Your task to perform on an android device: Clear all items from cart on costco. Search for macbook pro on costco, select the first entry, and add it to the cart. Image 0: 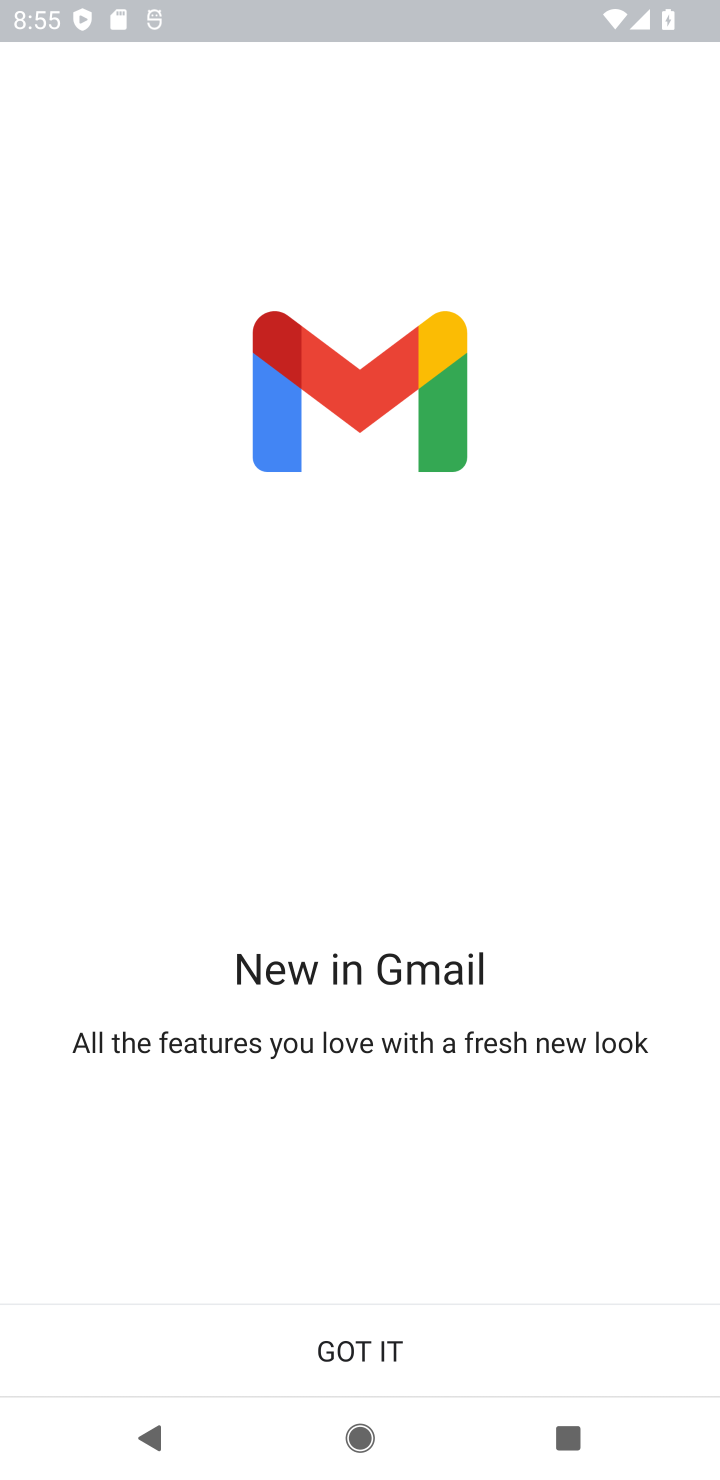
Step 0: press home button
Your task to perform on an android device: Clear all items from cart on costco. Search for macbook pro on costco, select the first entry, and add it to the cart. Image 1: 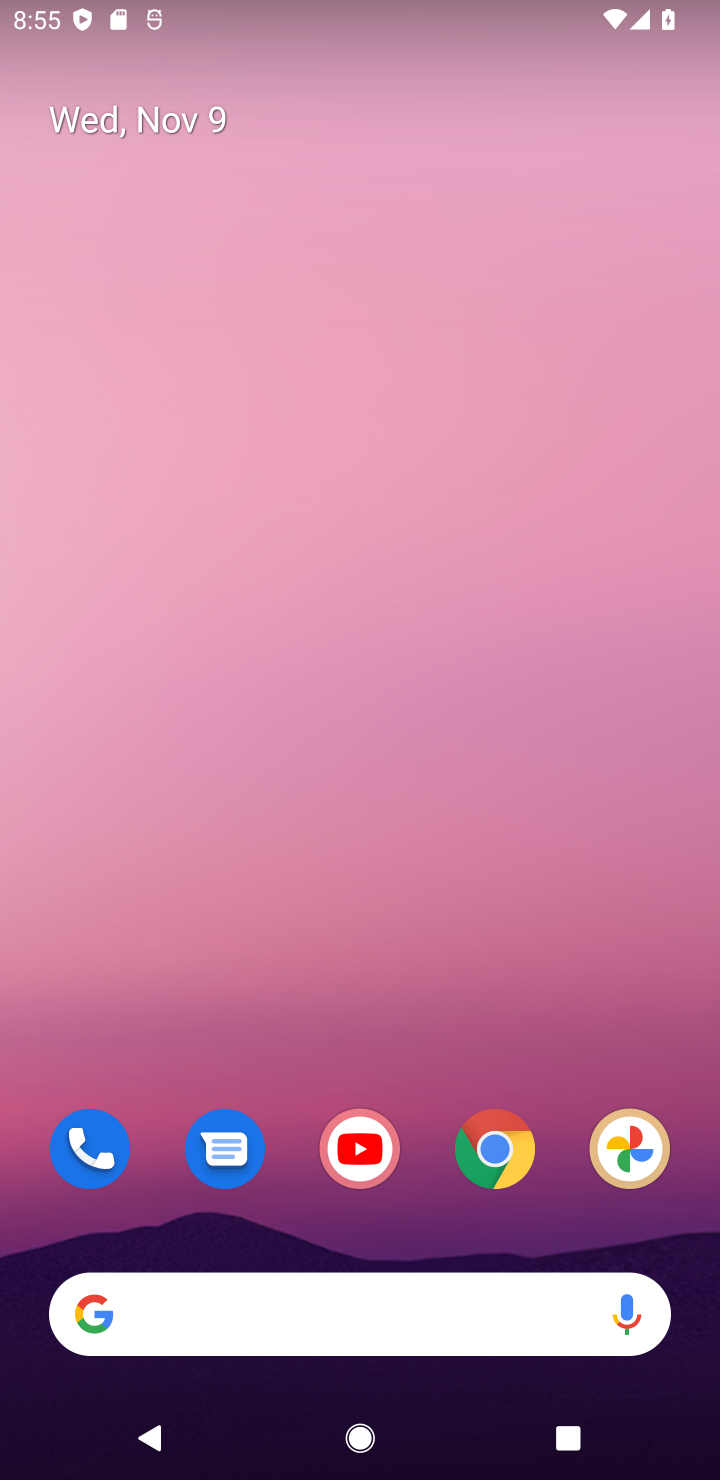
Step 1: click (479, 1120)
Your task to perform on an android device: Clear all items from cart on costco. Search for macbook pro on costco, select the first entry, and add it to the cart. Image 2: 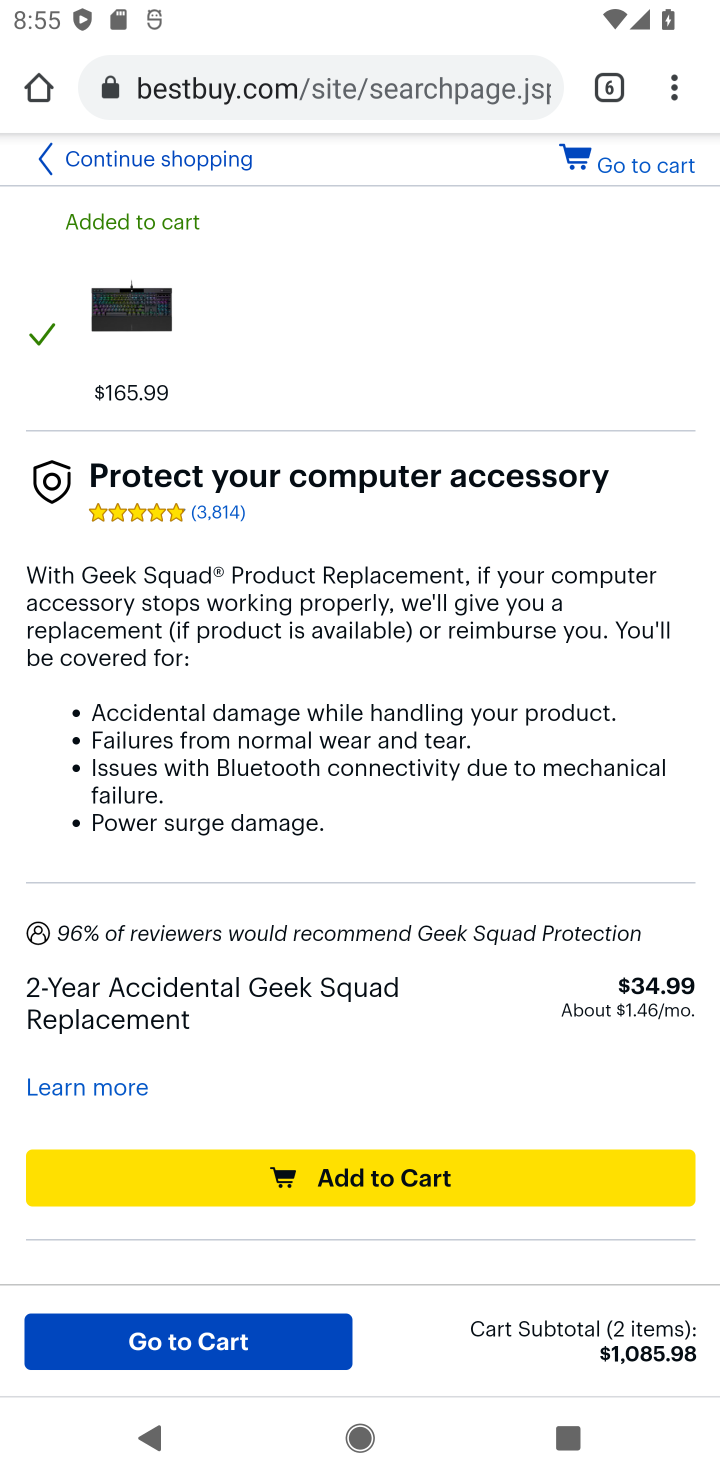
Step 2: click (613, 84)
Your task to perform on an android device: Clear all items from cart on costco. Search for macbook pro on costco, select the first entry, and add it to the cart. Image 3: 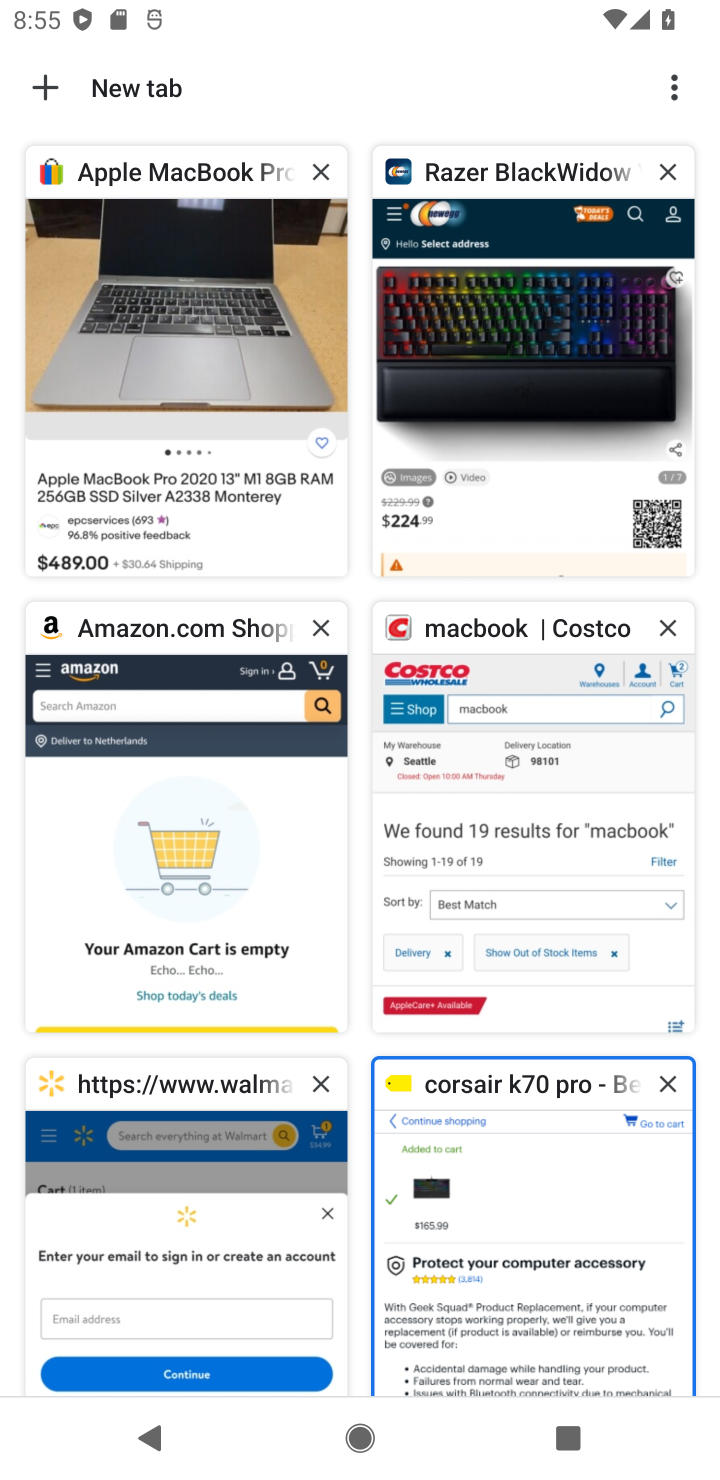
Step 3: click (538, 755)
Your task to perform on an android device: Clear all items from cart on costco. Search for macbook pro on costco, select the first entry, and add it to the cart. Image 4: 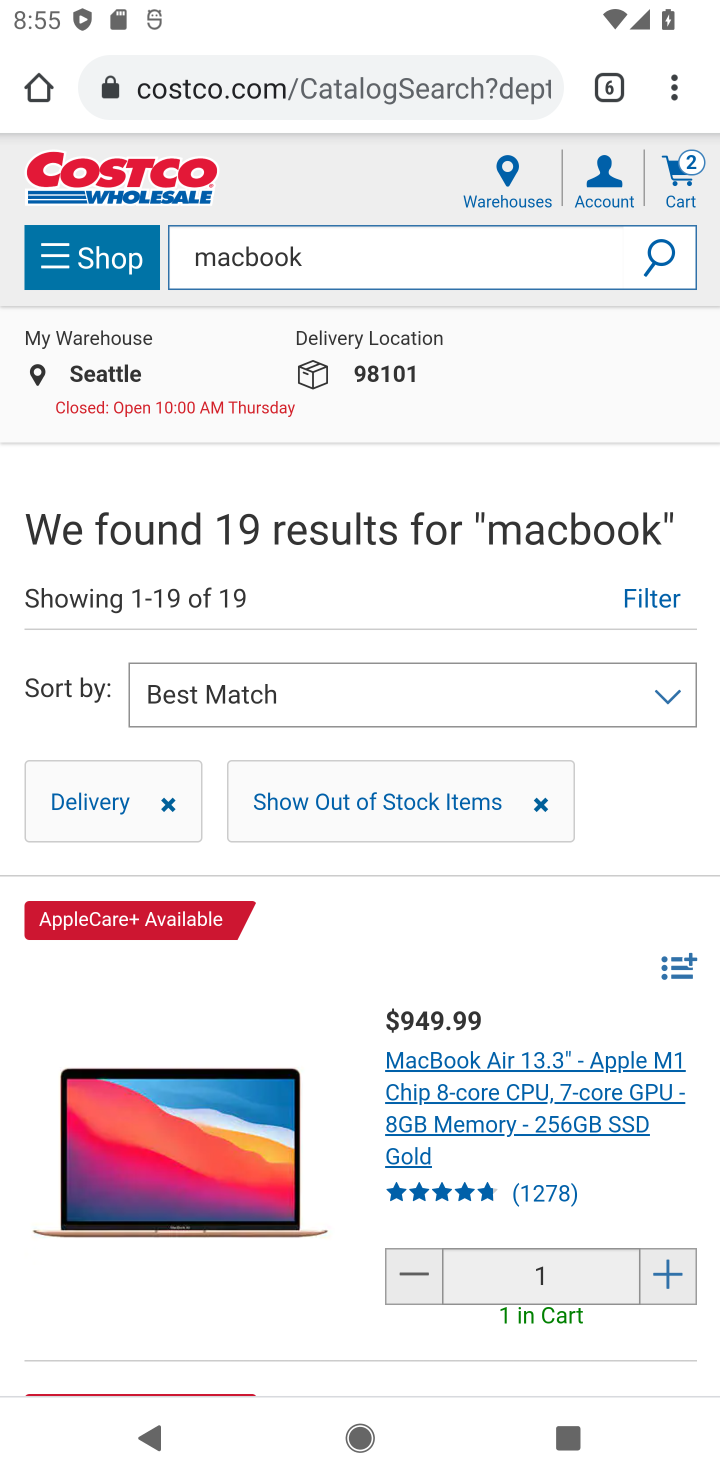
Step 4: click (671, 180)
Your task to perform on an android device: Clear all items from cart on costco. Search for macbook pro on costco, select the first entry, and add it to the cart. Image 5: 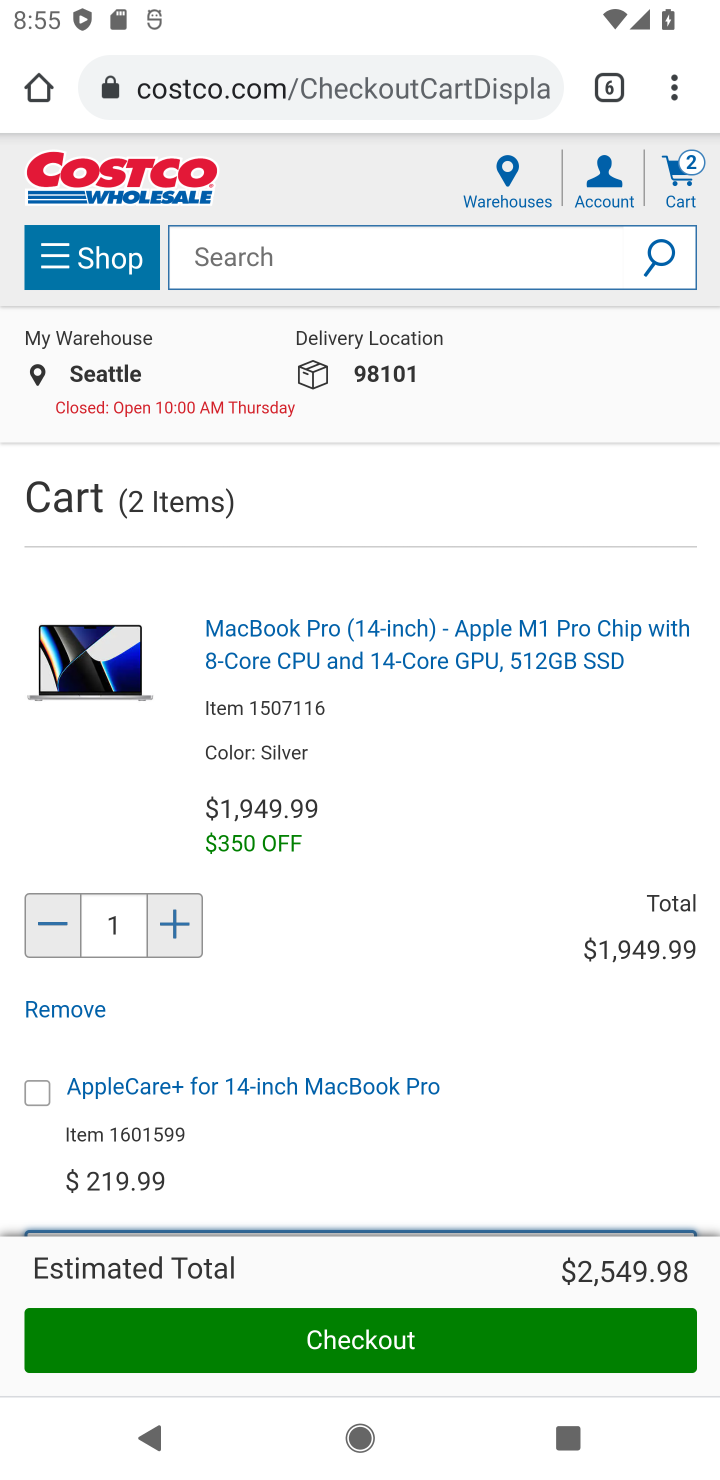
Step 5: click (78, 1010)
Your task to perform on an android device: Clear all items from cart on costco. Search for macbook pro on costco, select the first entry, and add it to the cart. Image 6: 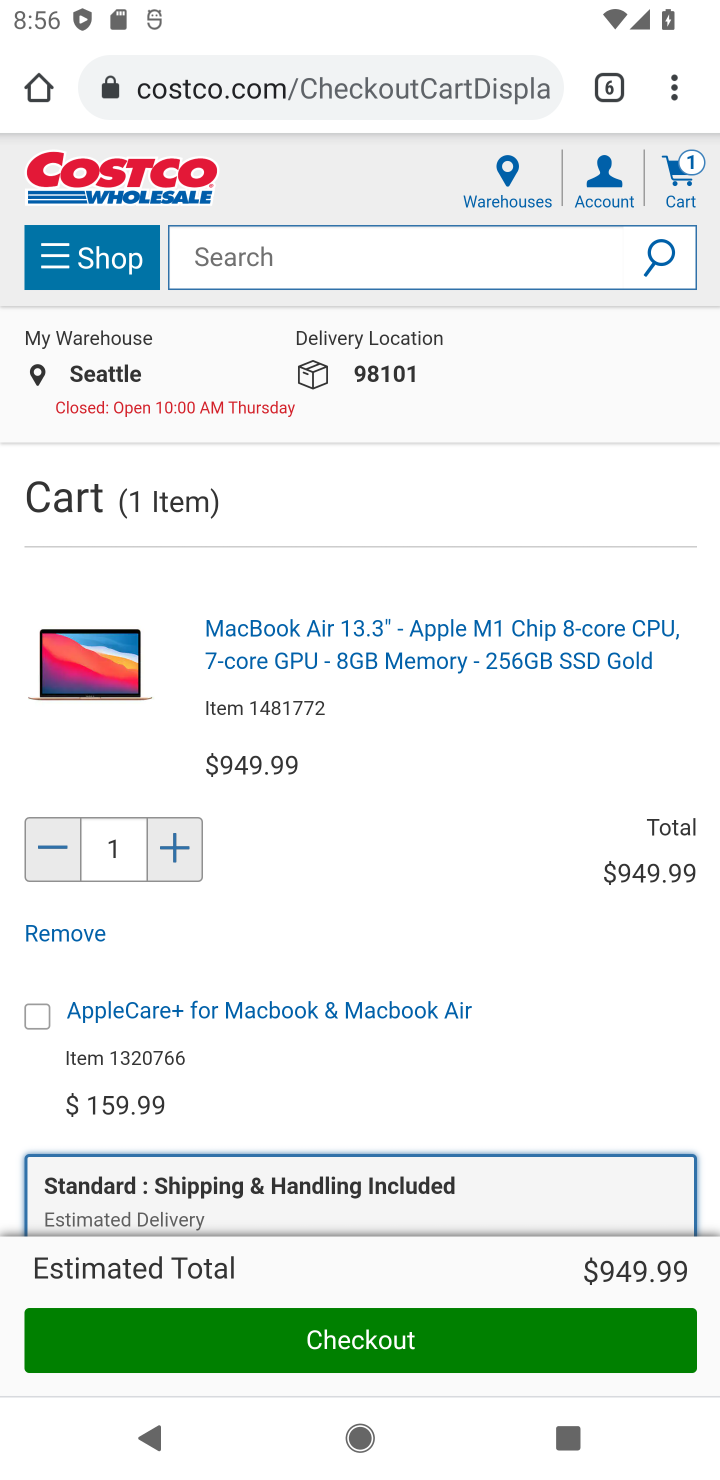
Step 6: drag from (480, 1122) to (672, 198)
Your task to perform on an android device: Clear all items from cart on costco. Search for macbook pro on costco, select the first entry, and add it to the cart. Image 7: 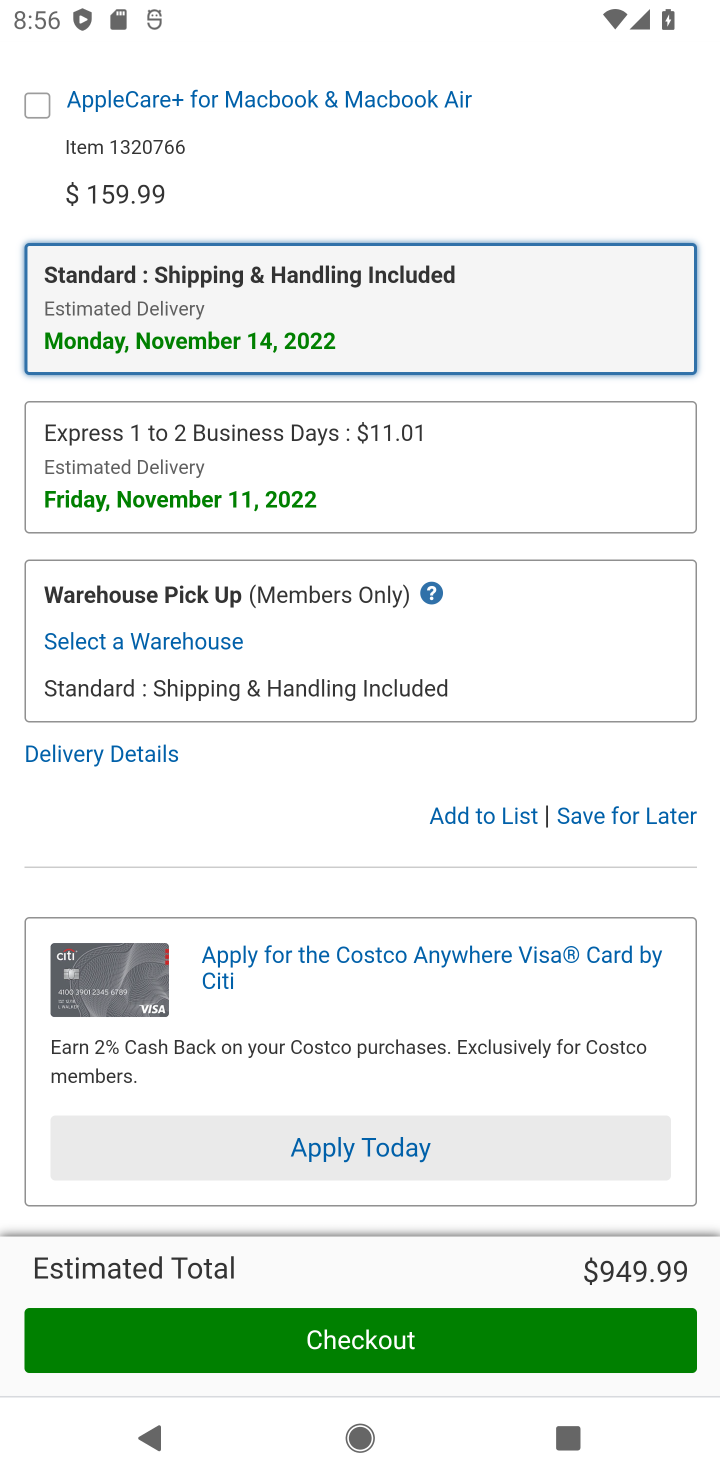
Step 7: click (619, 817)
Your task to perform on an android device: Clear all items from cart on costco. Search for macbook pro on costco, select the first entry, and add it to the cart. Image 8: 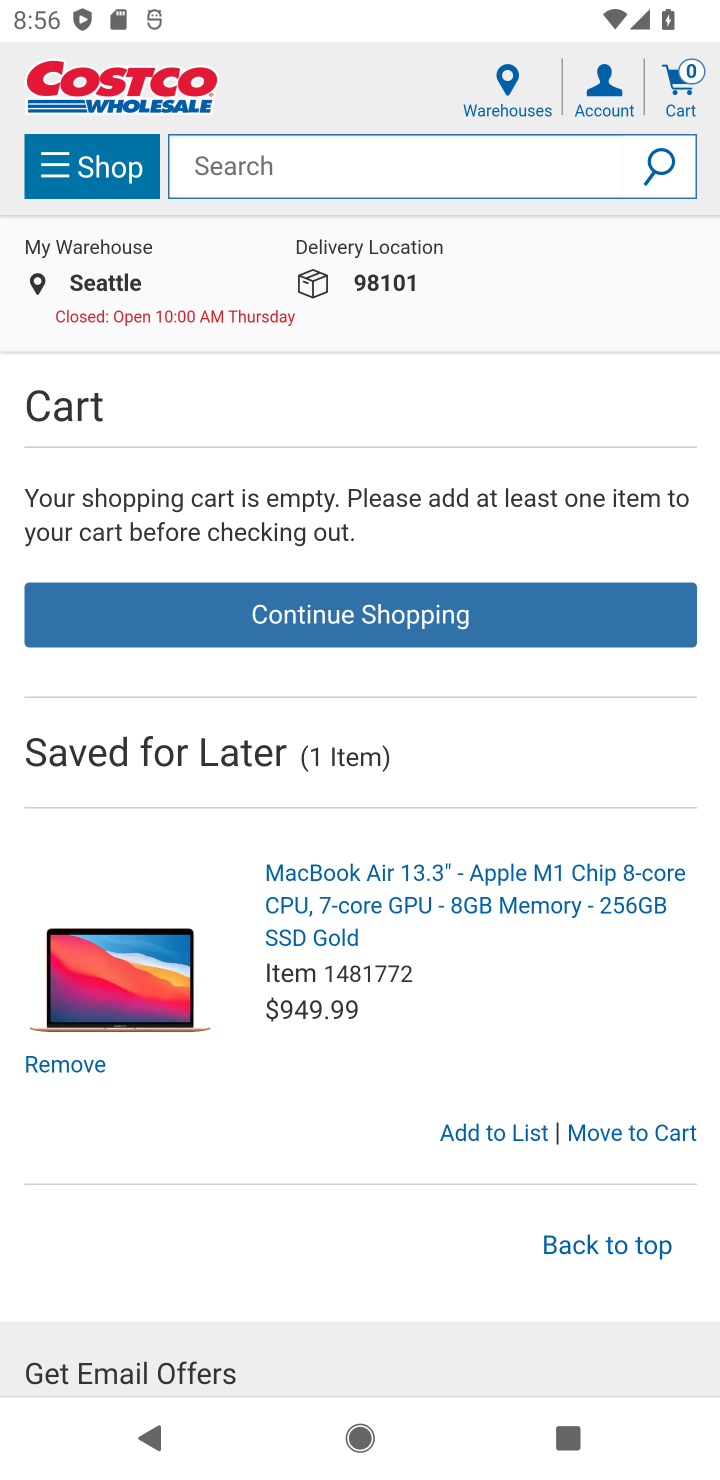
Step 8: click (251, 170)
Your task to perform on an android device: Clear all items from cart on costco. Search for macbook pro on costco, select the first entry, and add it to the cart. Image 9: 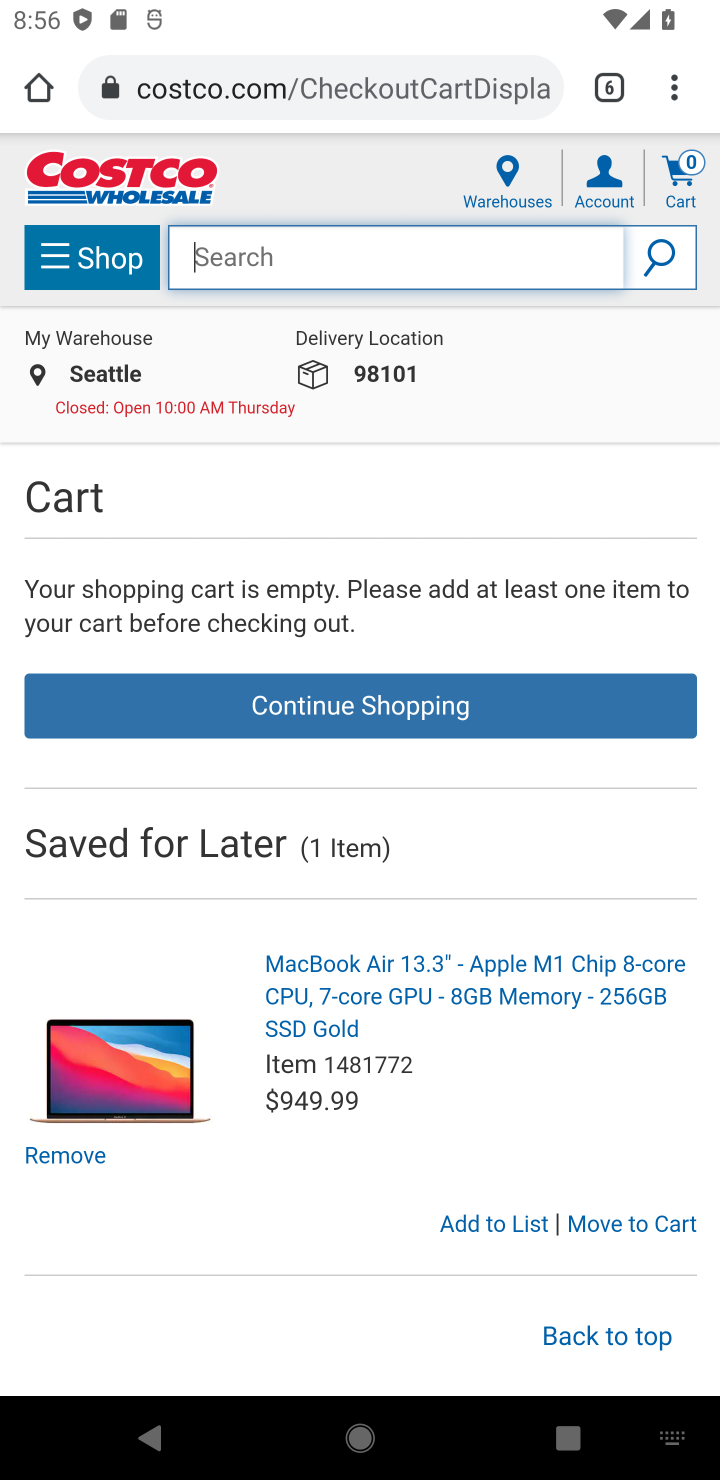
Step 9: type "macbook pro"
Your task to perform on an android device: Clear all items from cart on costco. Search for macbook pro on costco, select the first entry, and add it to the cart. Image 10: 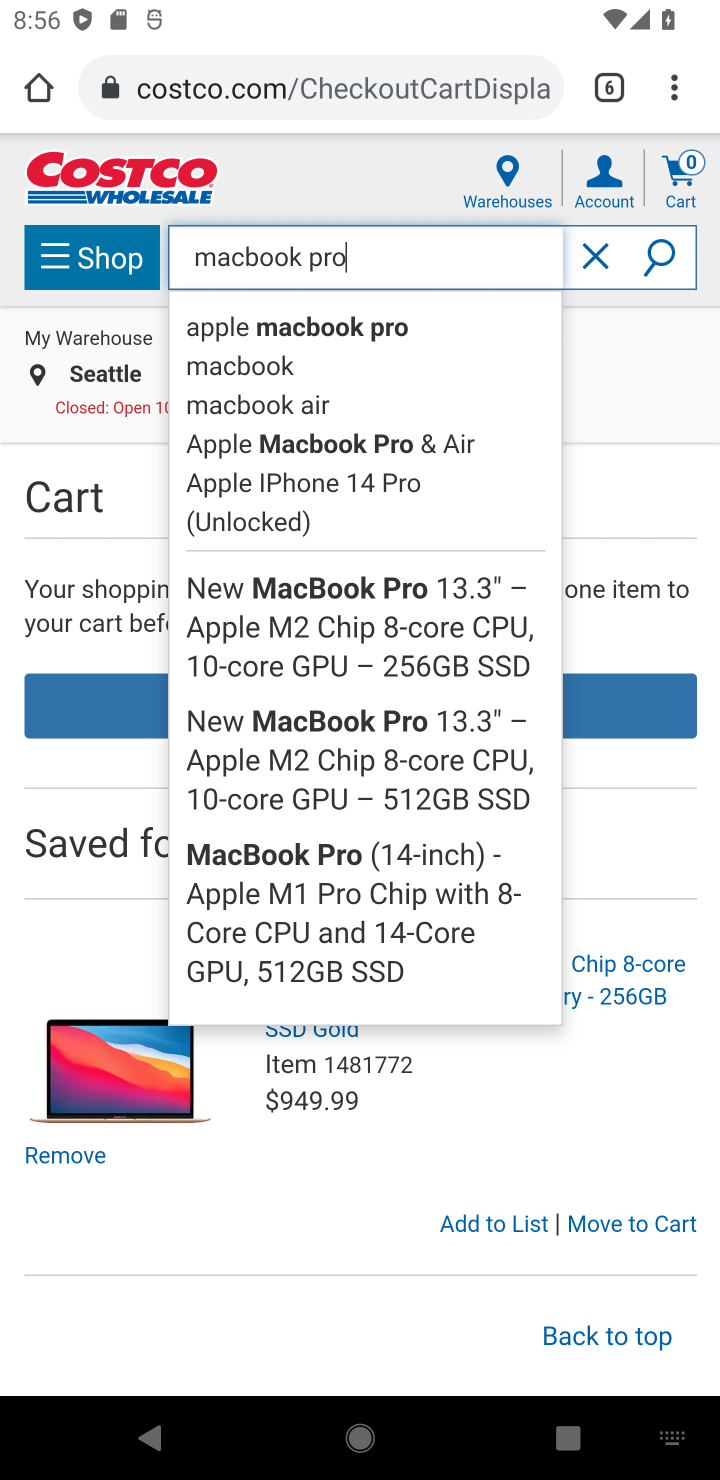
Step 10: click (656, 251)
Your task to perform on an android device: Clear all items from cart on costco. Search for macbook pro on costco, select the first entry, and add it to the cart. Image 11: 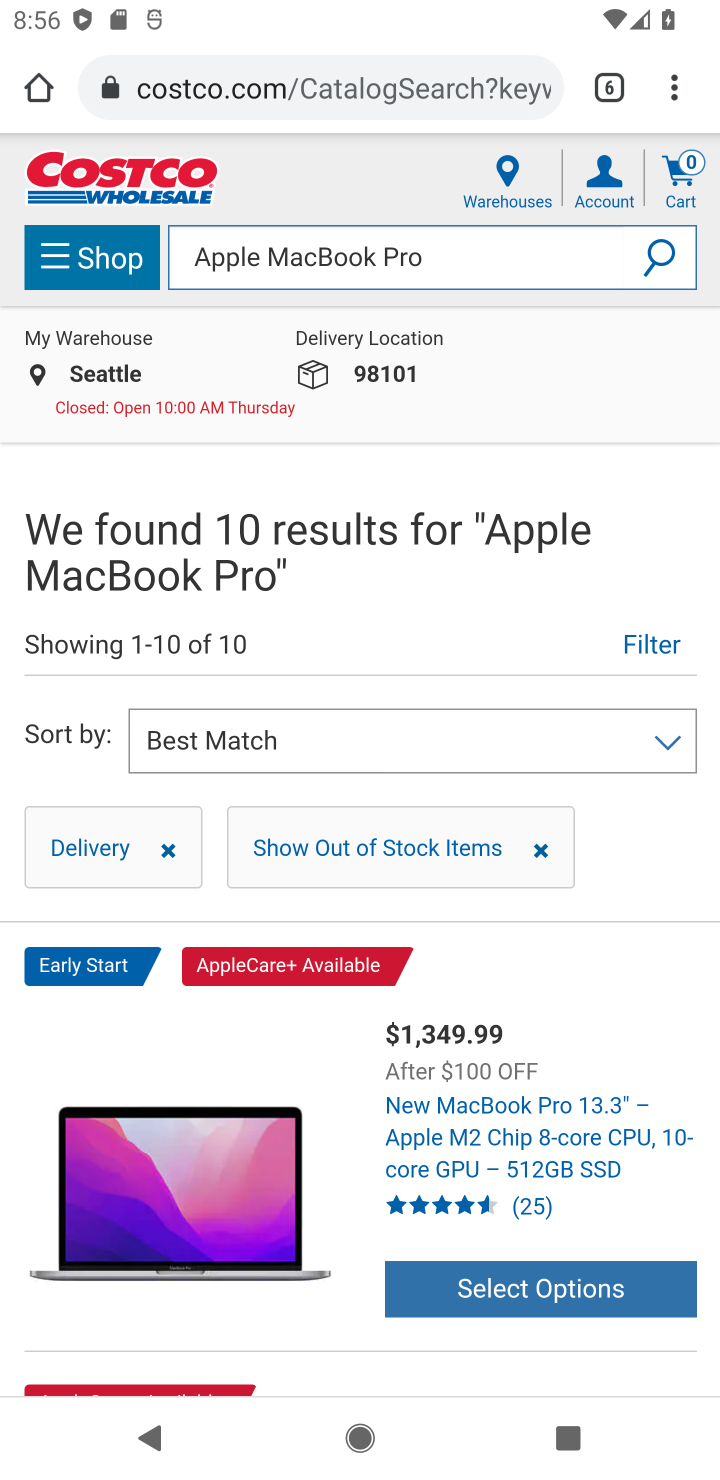
Step 11: click (543, 1109)
Your task to perform on an android device: Clear all items from cart on costco. Search for macbook pro on costco, select the first entry, and add it to the cart. Image 12: 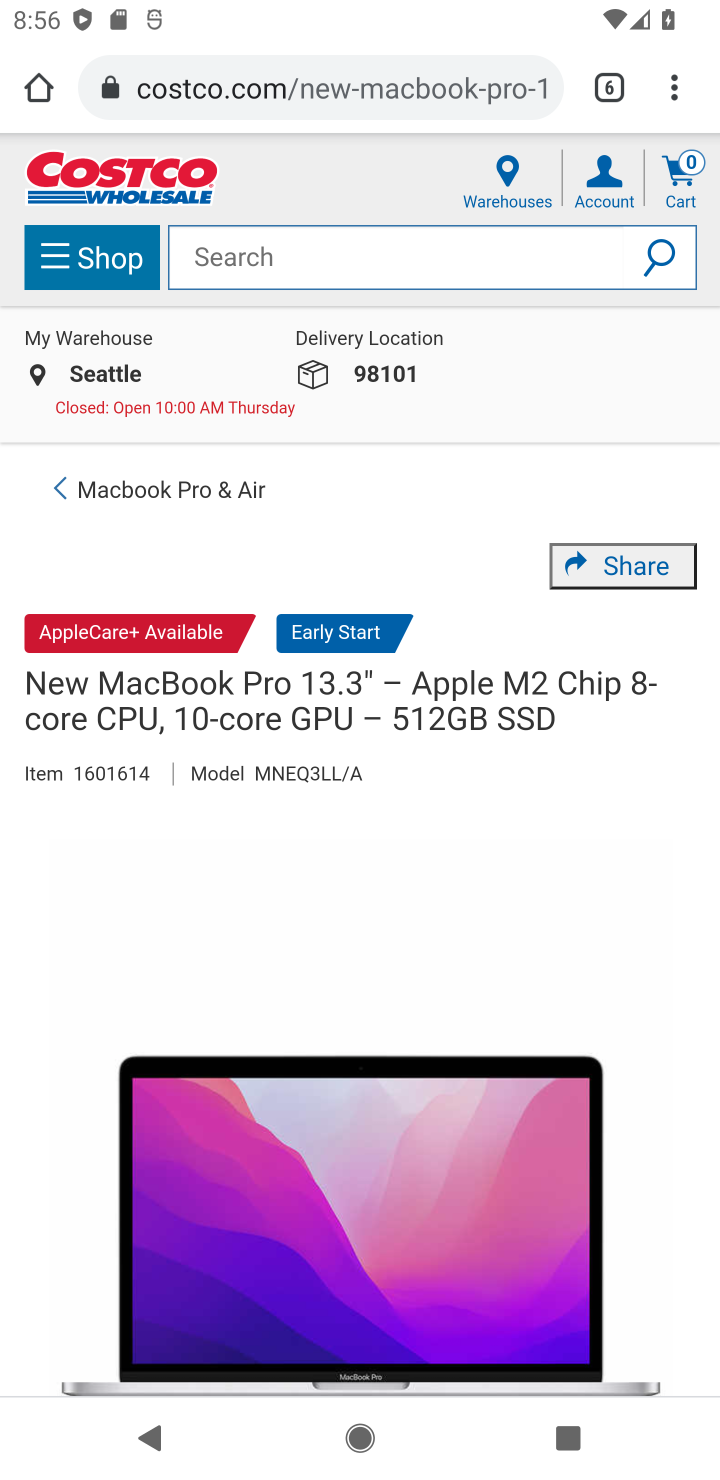
Step 12: drag from (33, 1296) to (165, 752)
Your task to perform on an android device: Clear all items from cart on costco. Search for macbook pro on costco, select the first entry, and add it to the cart. Image 13: 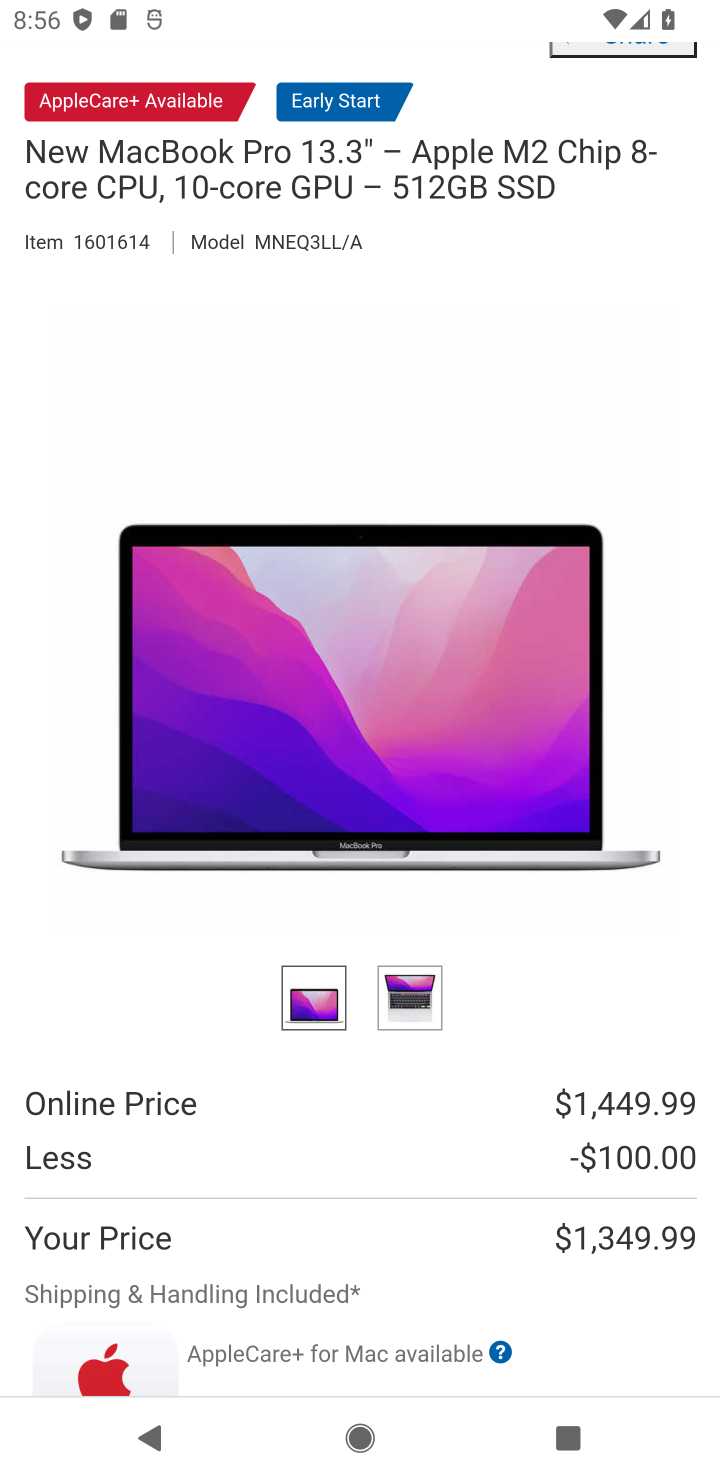
Step 13: drag from (413, 1175) to (703, 437)
Your task to perform on an android device: Clear all items from cart on costco. Search for macbook pro on costco, select the first entry, and add it to the cart. Image 14: 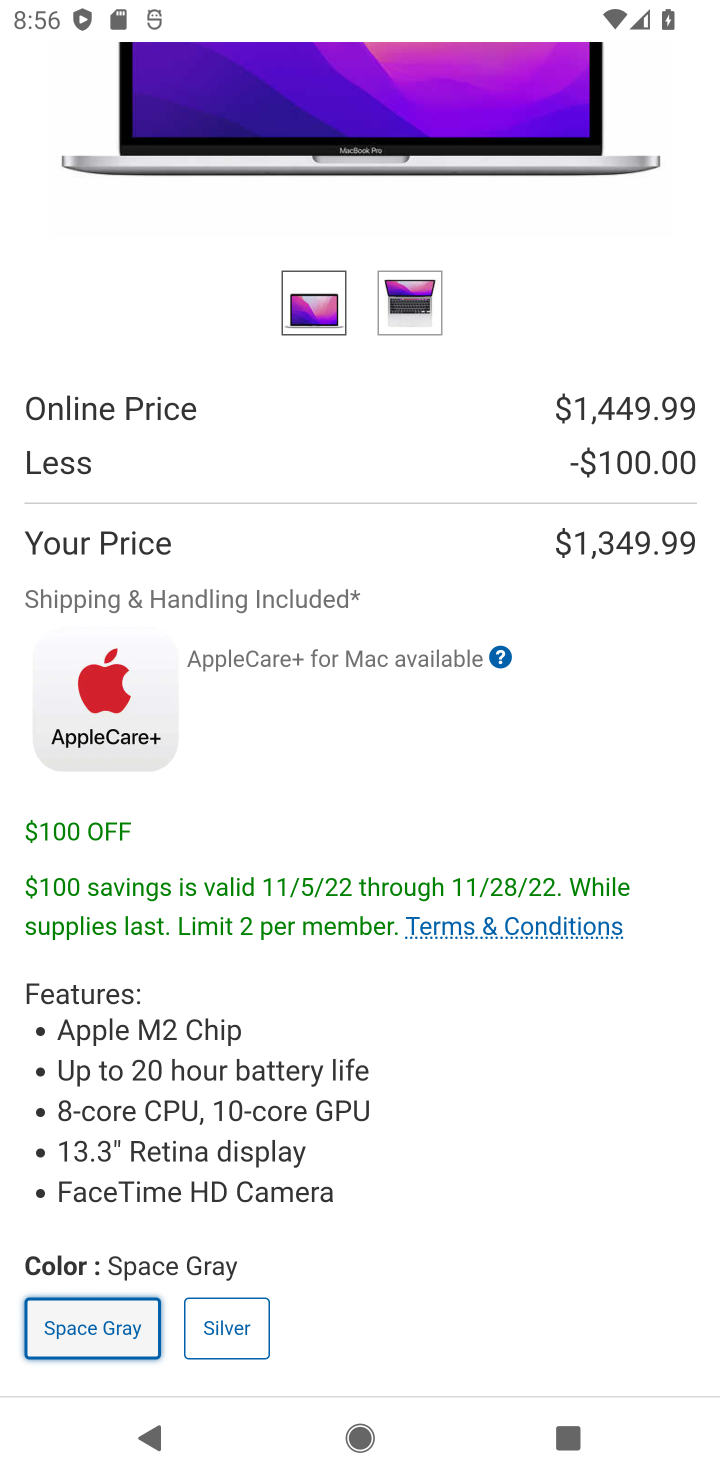
Step 14: drag from (448, 1240) to (603, 311)
Your task to perform on an android device: Clear all items from cart on costco. Search for macbook pro on costco, select the first entry, and add it to the cart. Image 15: 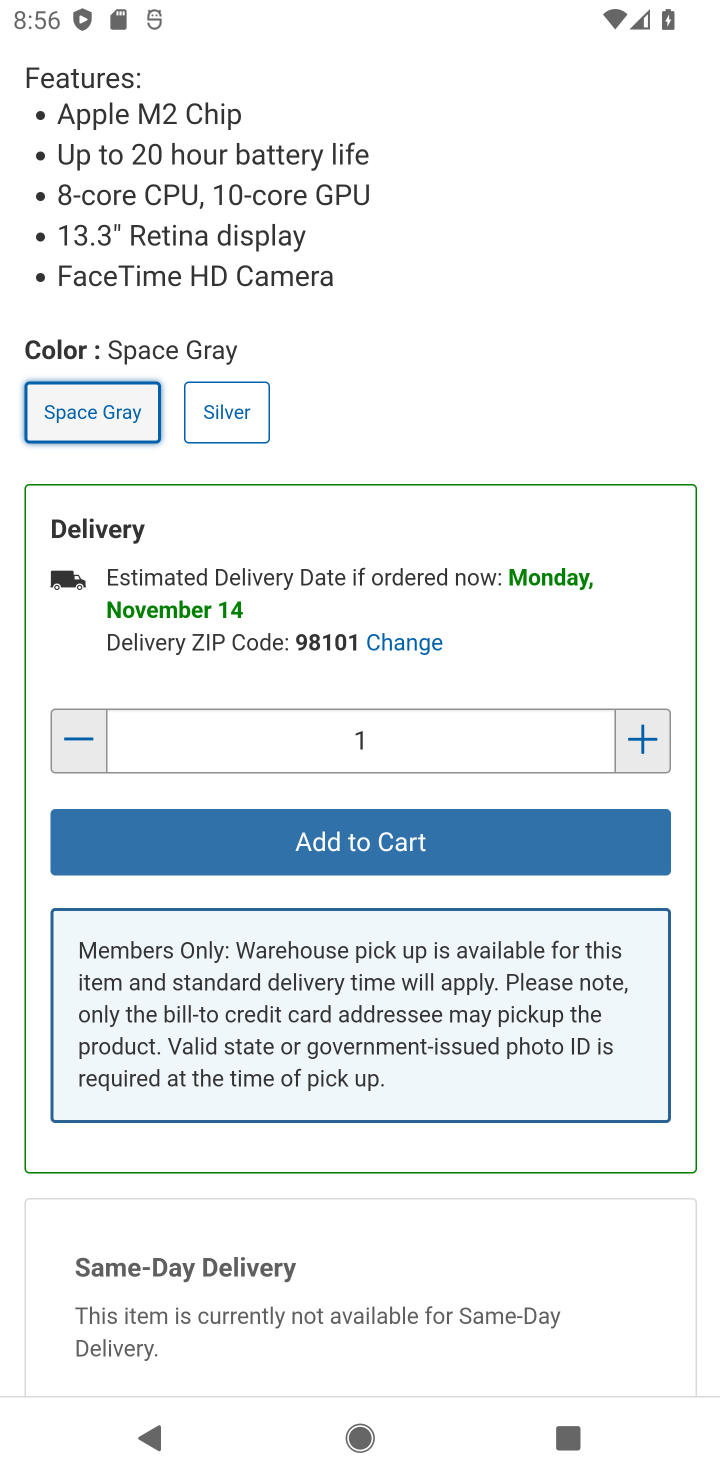
Step 15: click (405, 836)
Your task to perform on an android device: Clear all items from cart on costco. Search for macbook pro on costco, select the first entry, and add it to the cart. Image 16: 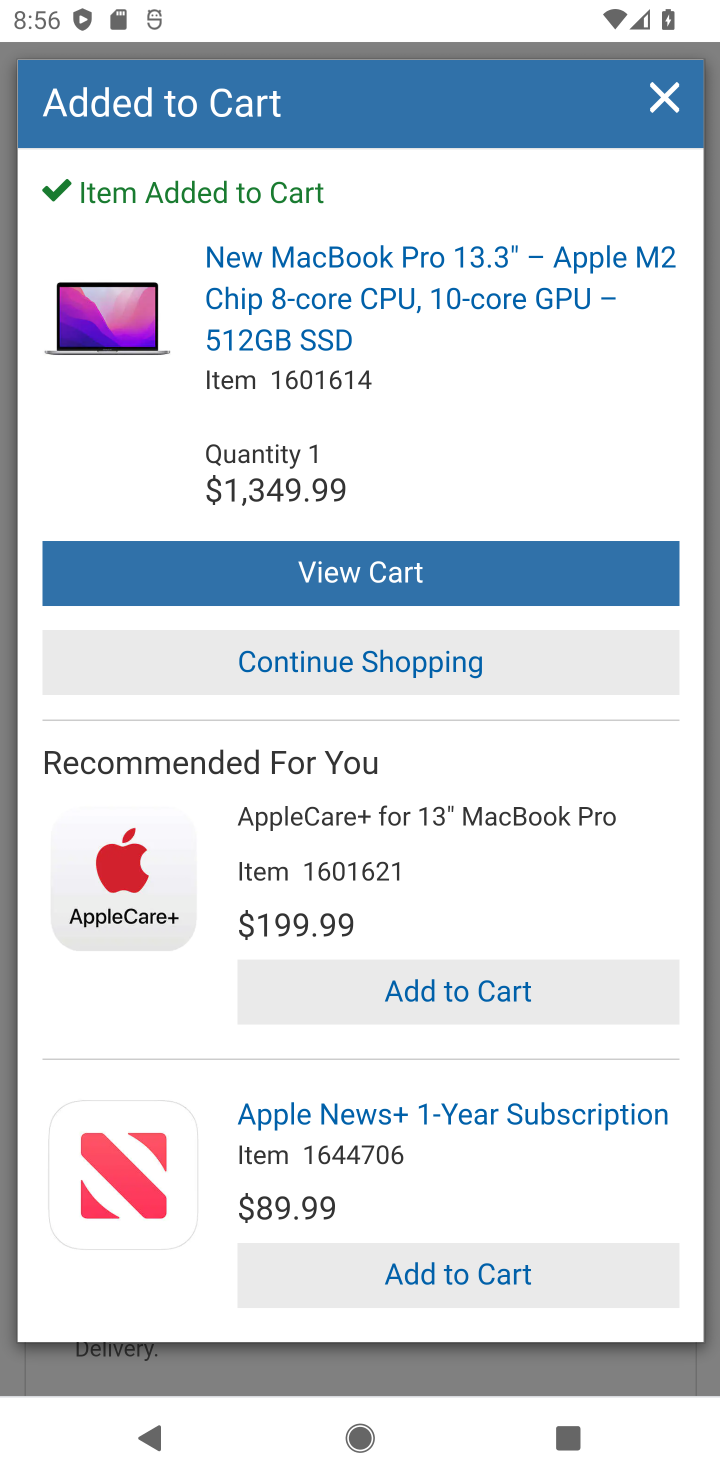
Step 16: task complete